Your task to perform on an android device: Open Google Chrome and click the shortcut for Amazon.com Image 0: 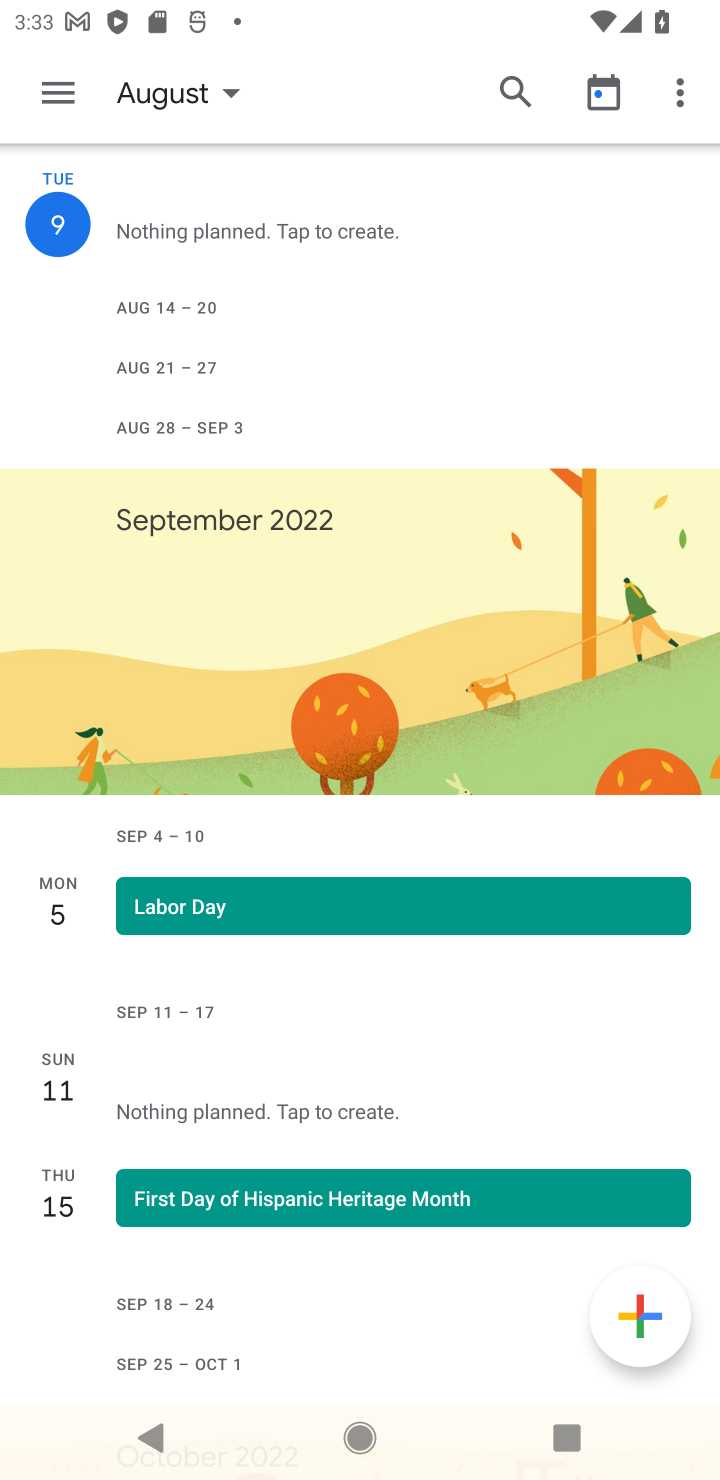
Step 0: press home button
Your task to perform on an android device: Open Google Chrome and click the shortcut for Amazon.com Image 1: 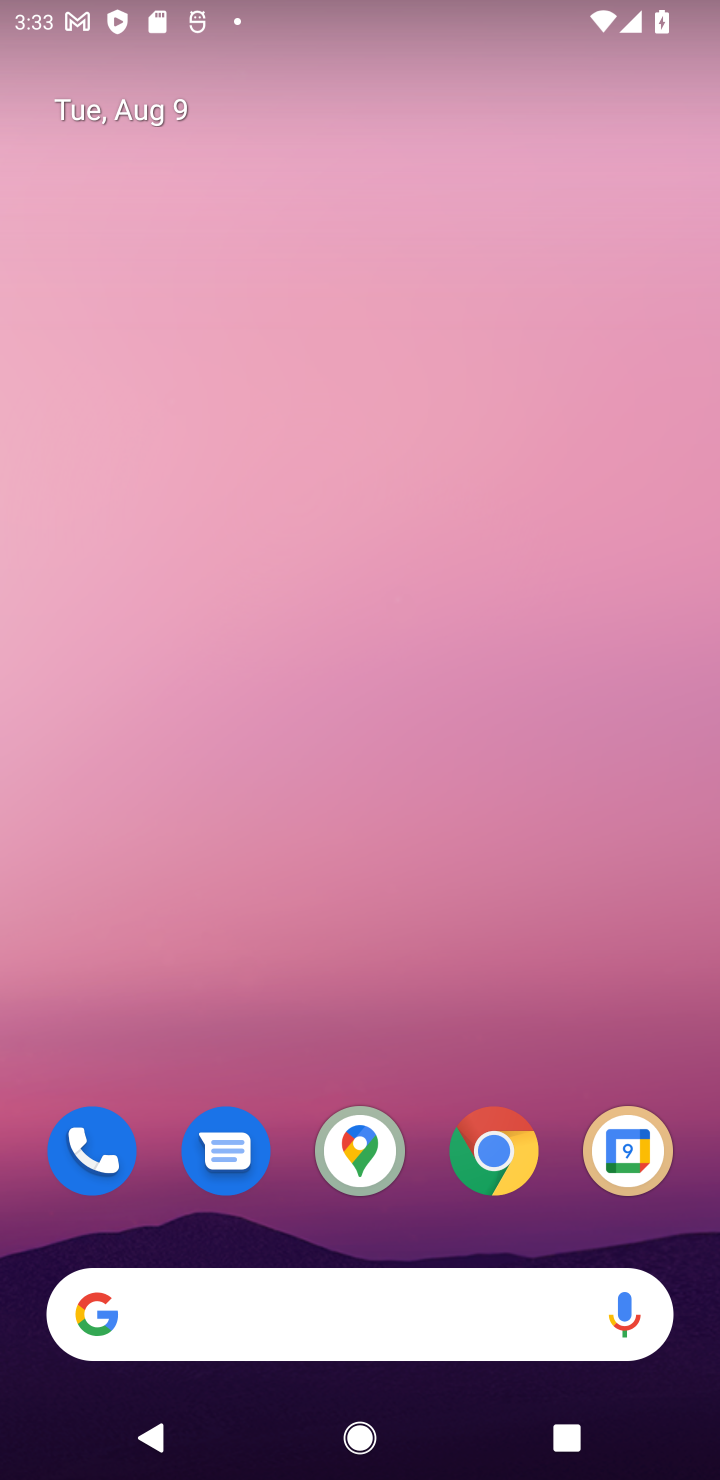
Step 1: click (488, 1174)
Your task to perform on an android device: Open Google Chrome and click the shortcut for Amazon.com Image 2: 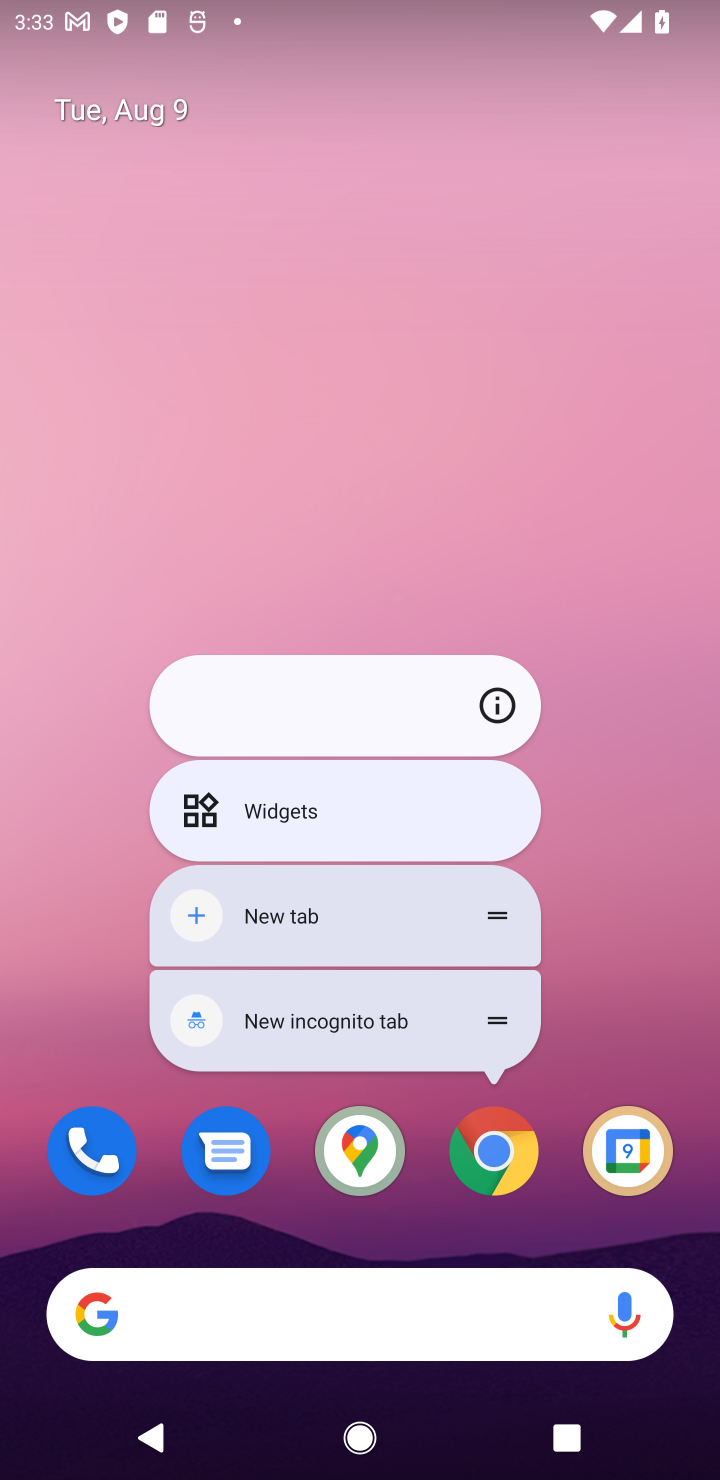
Step 2: click (500, 1205)
Your task to perform on an android device: Open Google Chrome and click the shortcut for Amazon.com Image 3: 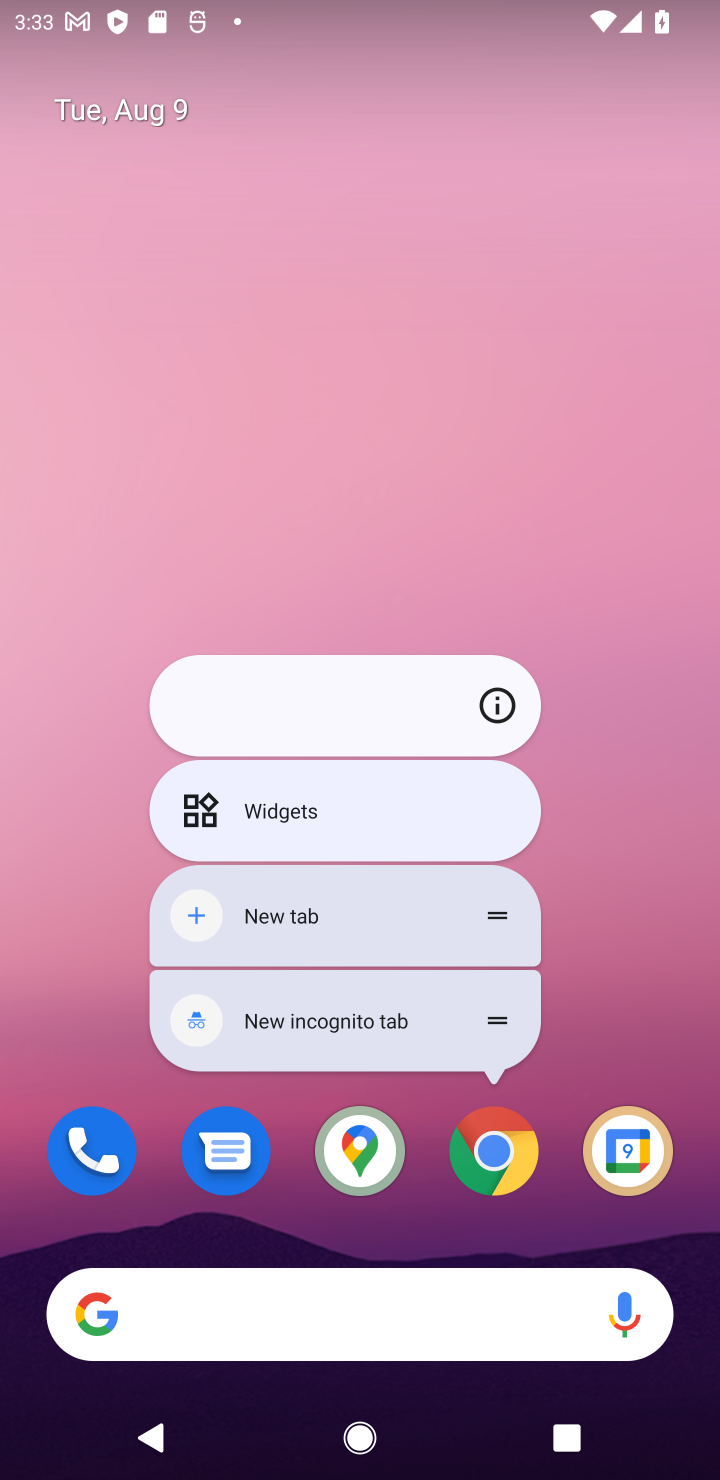
Step 3: click (501, 1153)
Your task to perform on an android device: Open Google Chrome and click the shortcut for Amazon.com Image 4: 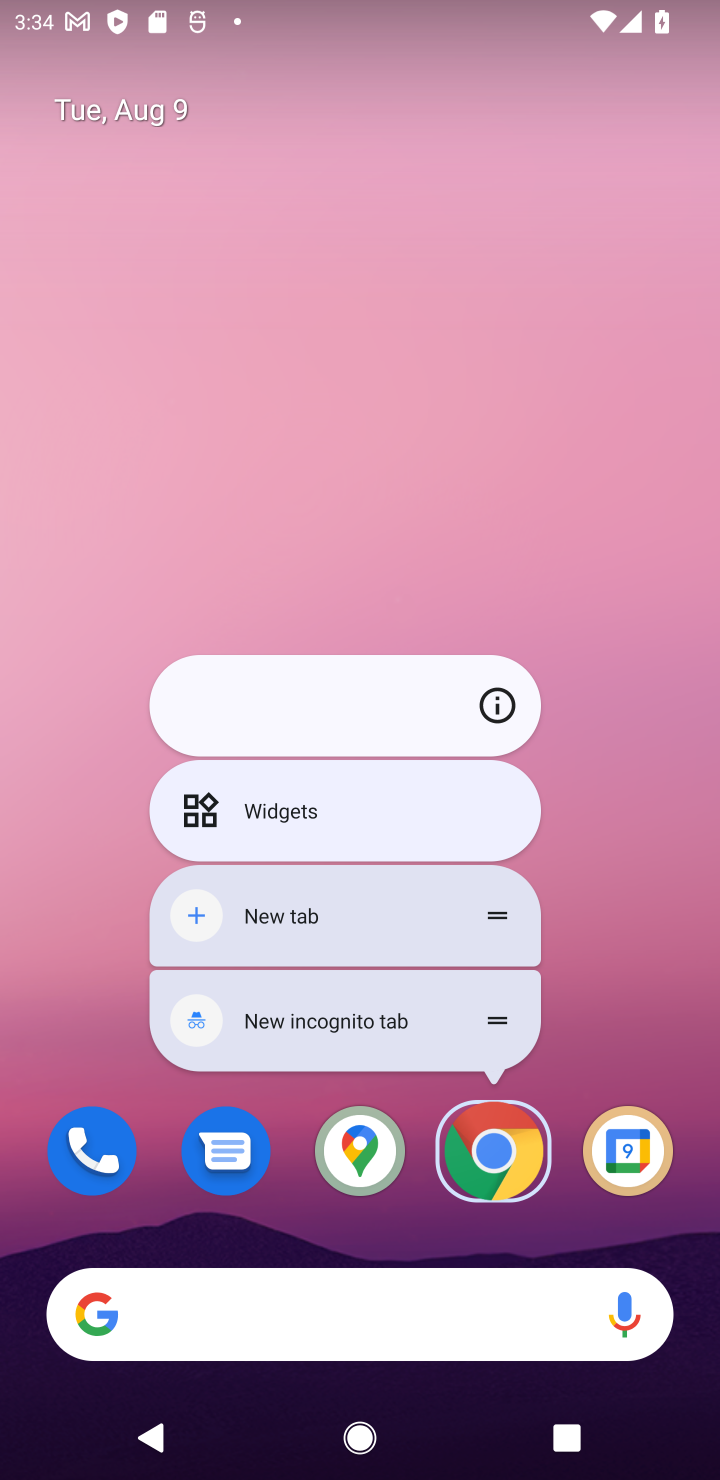
Step 4: click (501, 1153)
Your task to perform on an android device: Open Google Chrome and click the shortcut for Amazon.com Image 5: 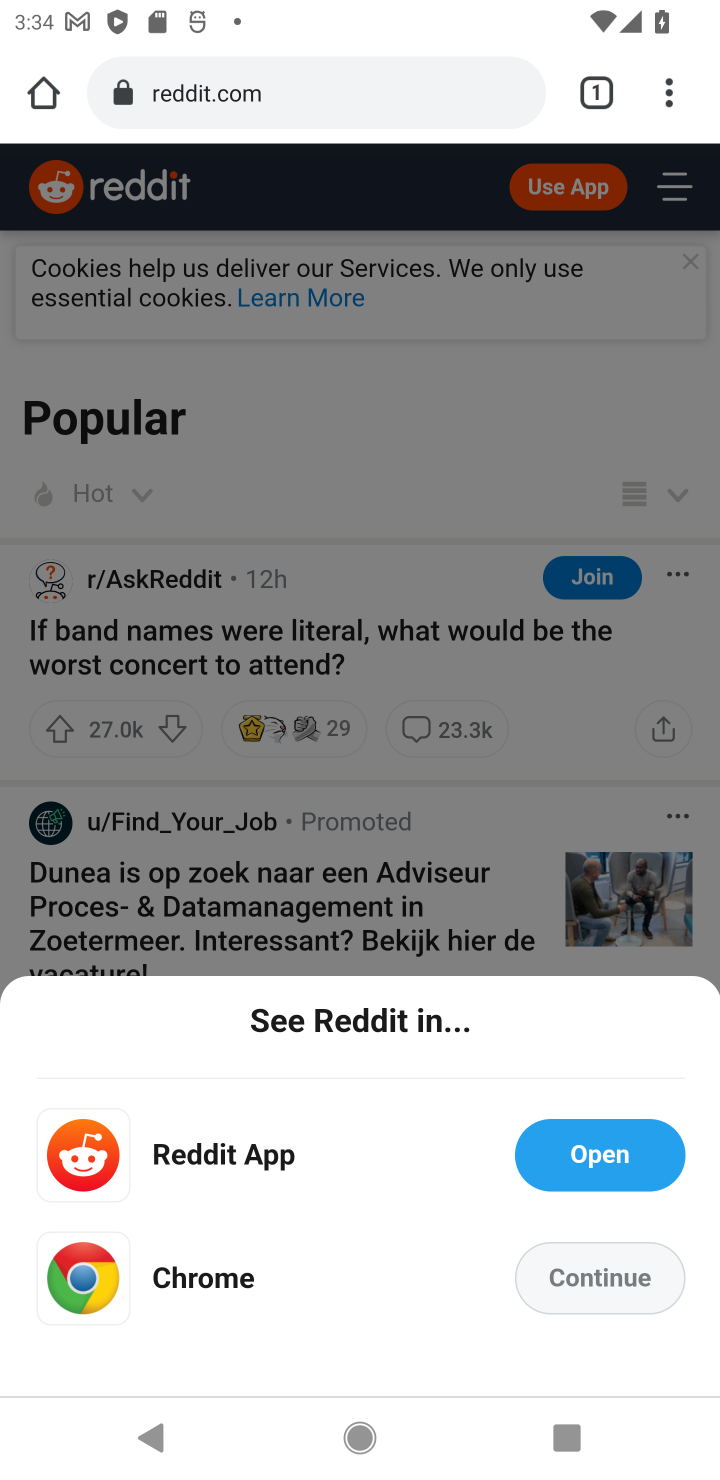
Step 5: click (673, 67)
Your task to perform on an android device: Open Google Chrome and click the shortcut for Amazon.com Image 6: 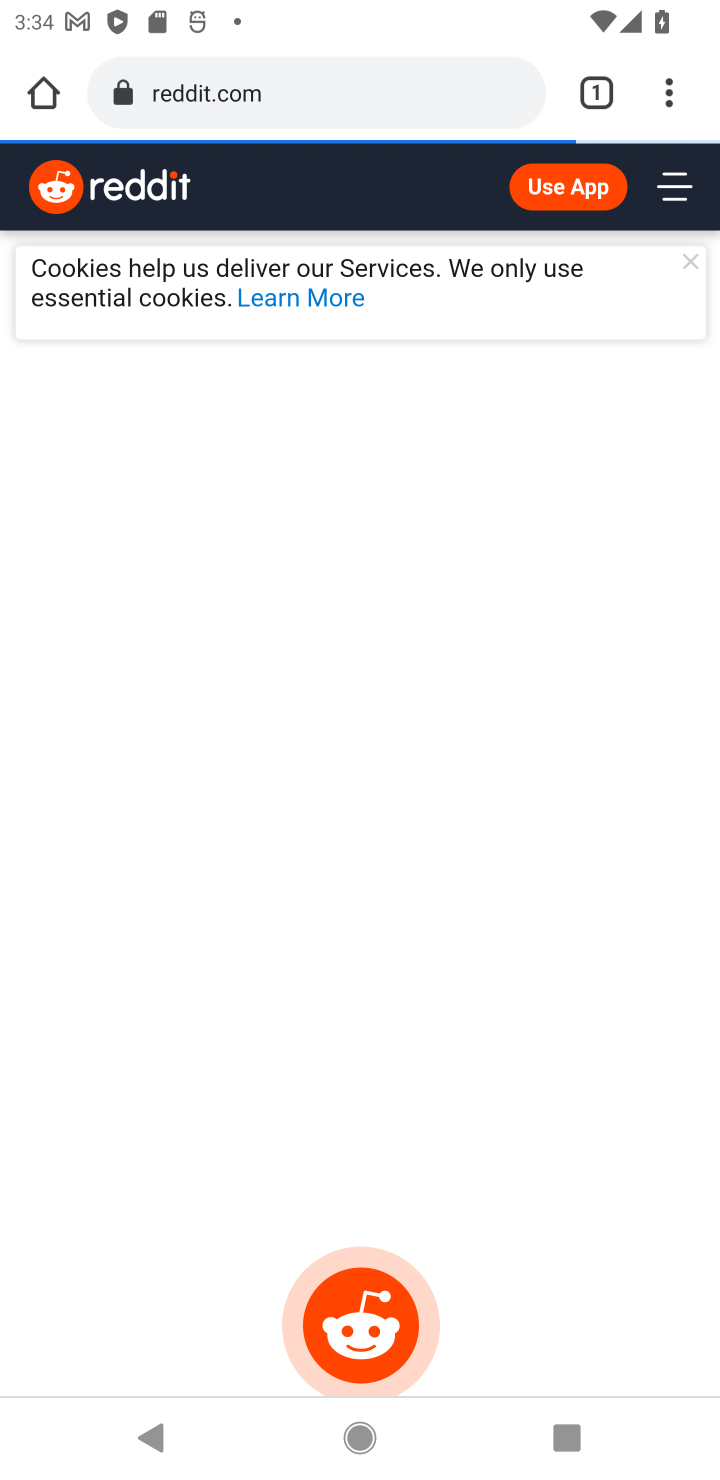
Step 6: click (673, 70)
Your task to perform on an android device: Open Google Chrome and click the shortcut for Amazon.com Image 7: 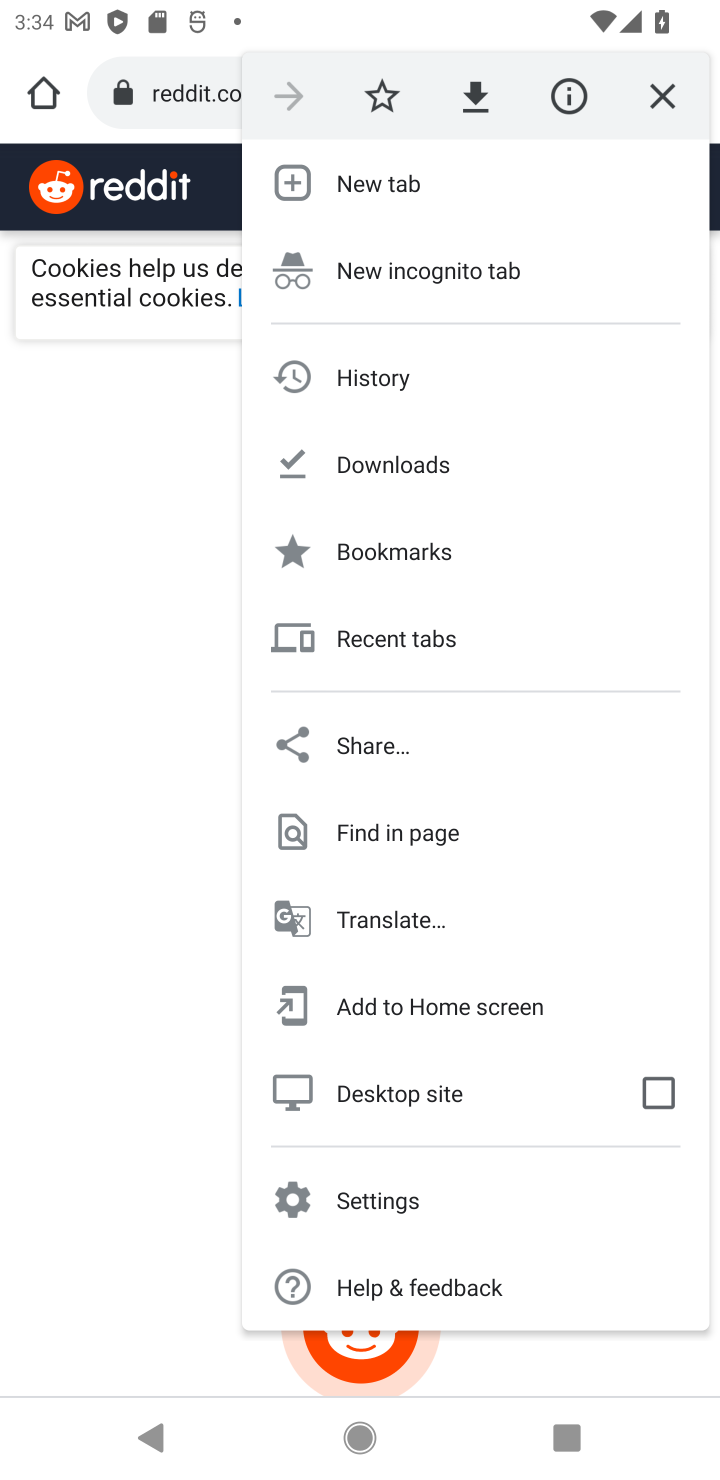
Step 7: click (472, 197)
Your task to perform on an android device: Open Google Chrome and click the shortcut for Amazon.com Image 8: 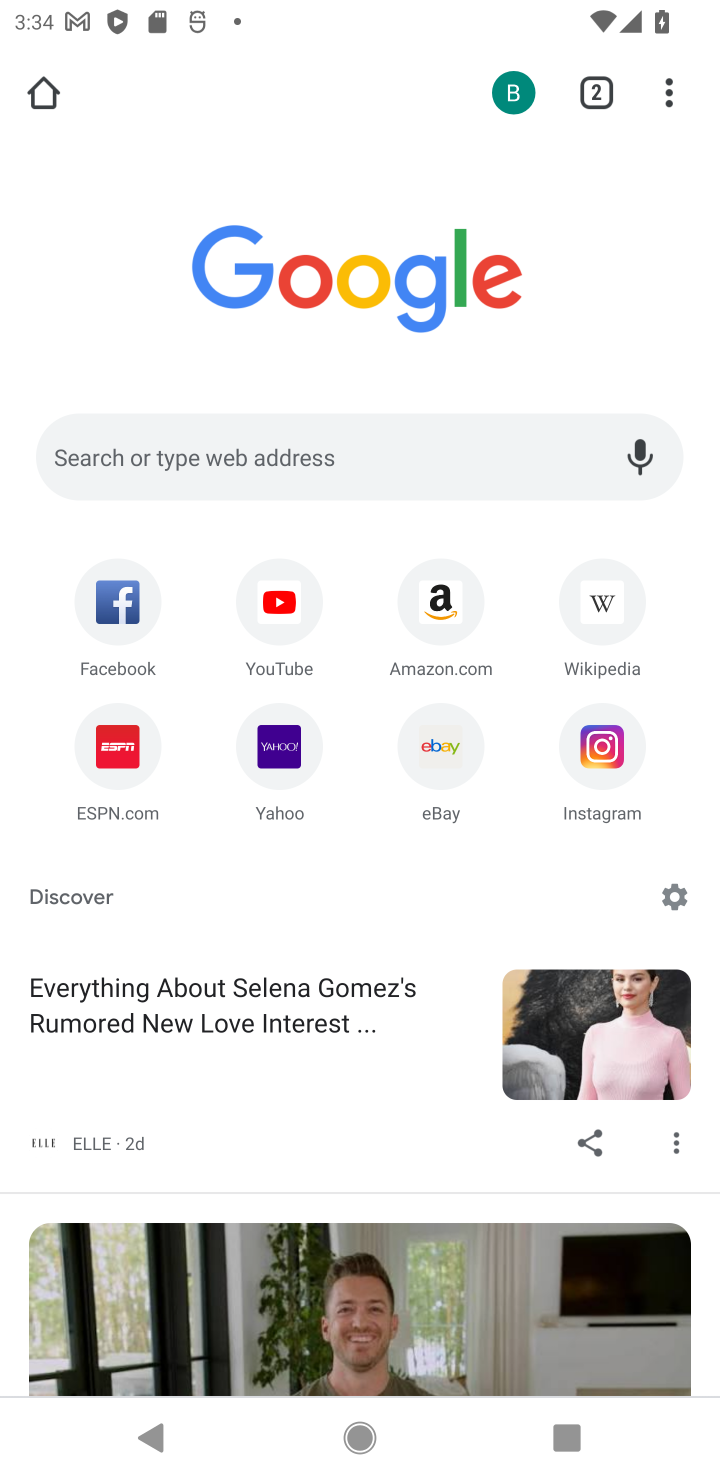
Step 8: click (431, 596)
Your task to perform on an android device: Open Google Chrome and click the shortcut for Amazon.com Image 9: 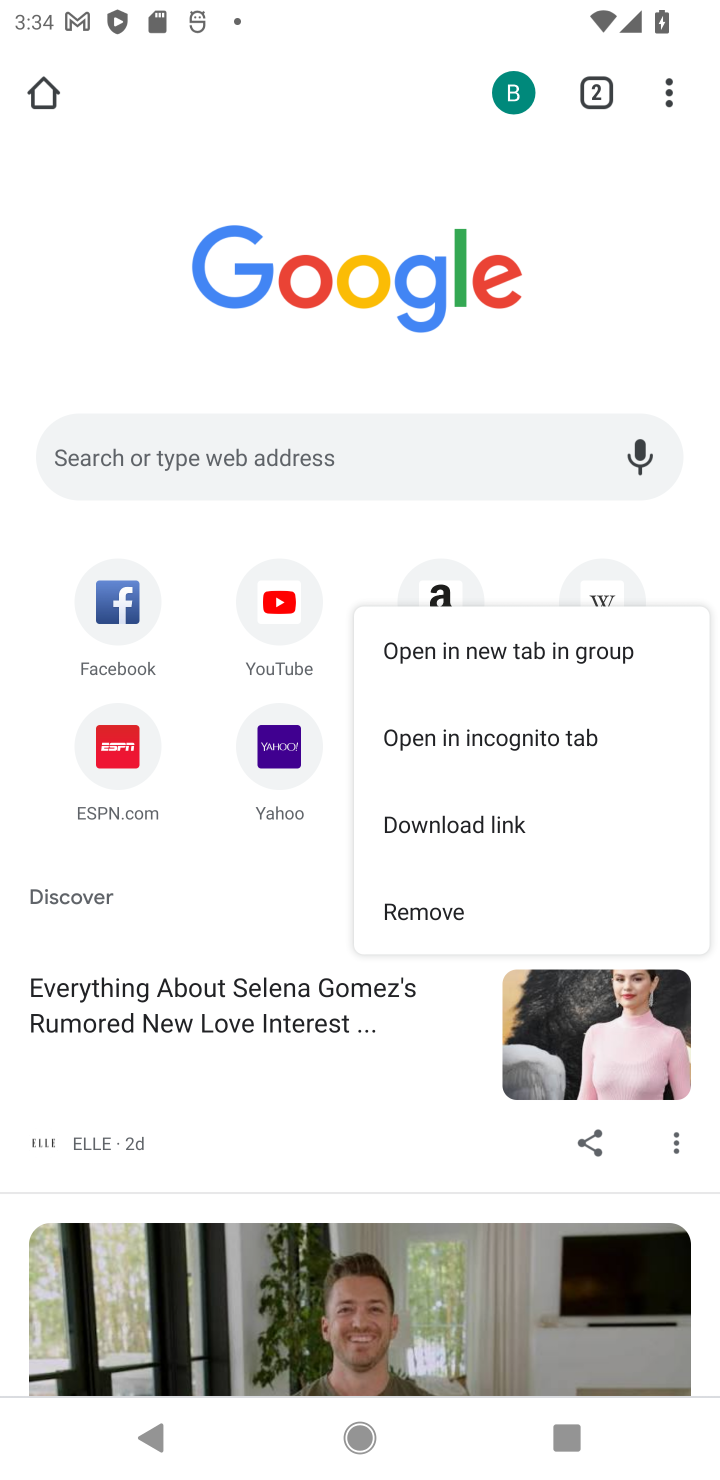
Step 9: click (450, 573)
Your task to perform on an android device: Open Google Chrome and click the shortcut for Amazon.com Image 10: 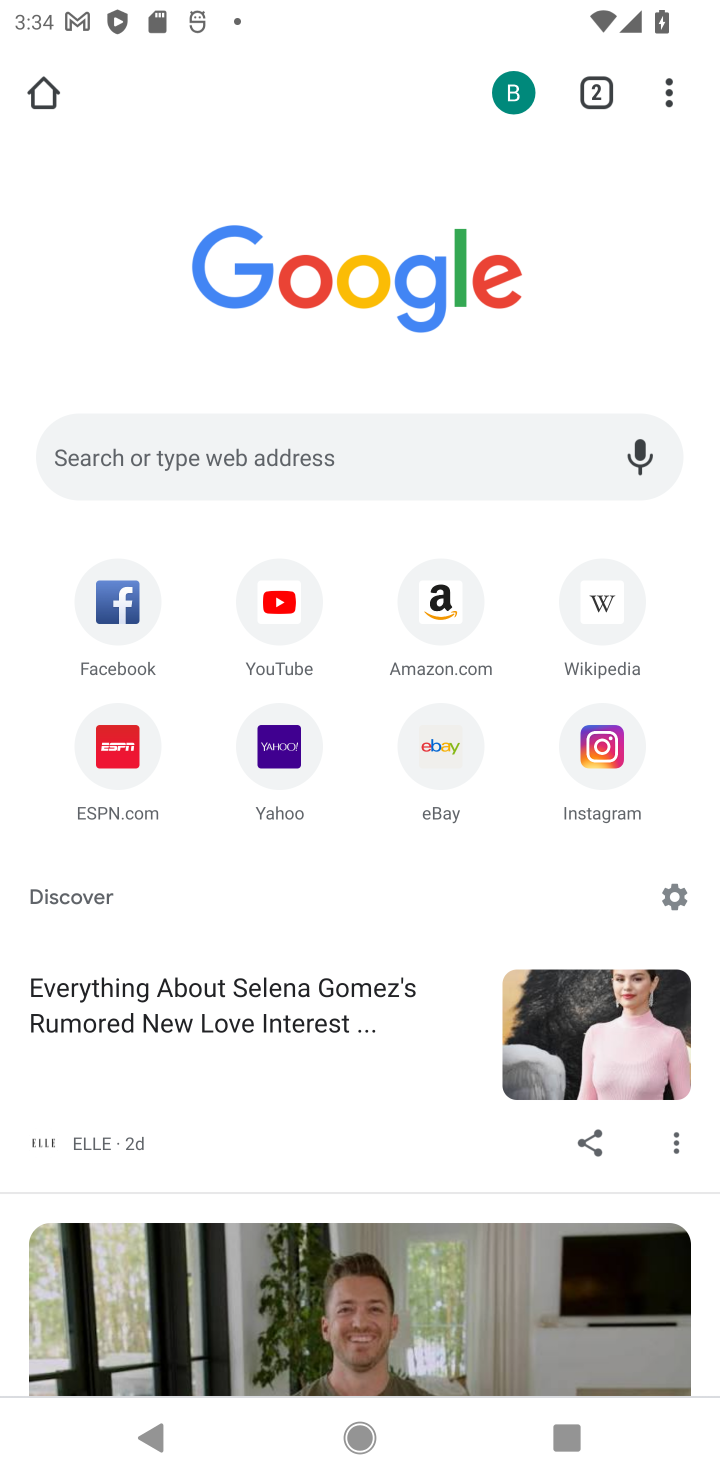
Step 10: click (431, 598)
Your task to perform on an android device: Open Google Chrome and click the shortcut for Amazon.com Image 11: 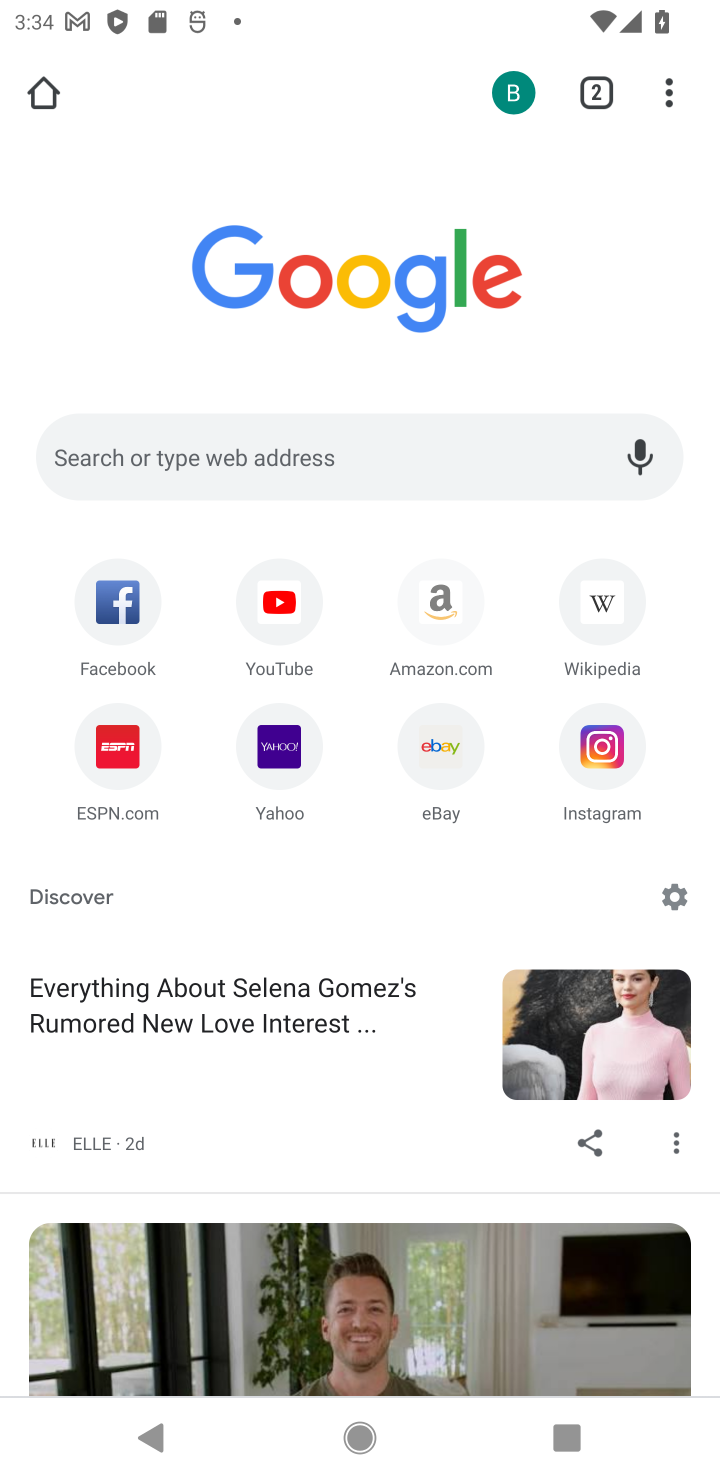
Step 11: click (431, 598)
Your task to perform on an android device: Open Google Chrome and click the shortcut for Amazon.com Image 12: 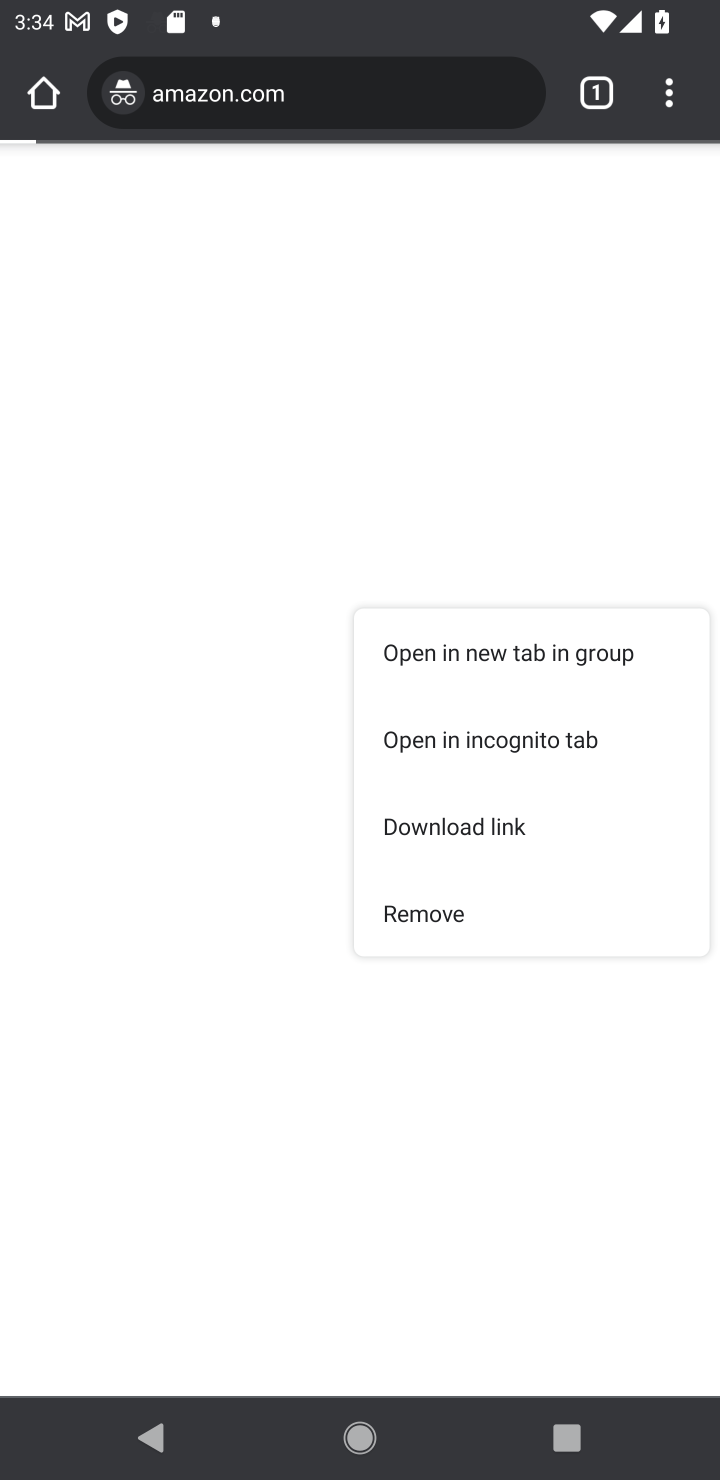
Step 12: click (470, 663)
Your task to perform on an android device: Open Google Chrome and click the shortcut for Amazon.com Image 13: 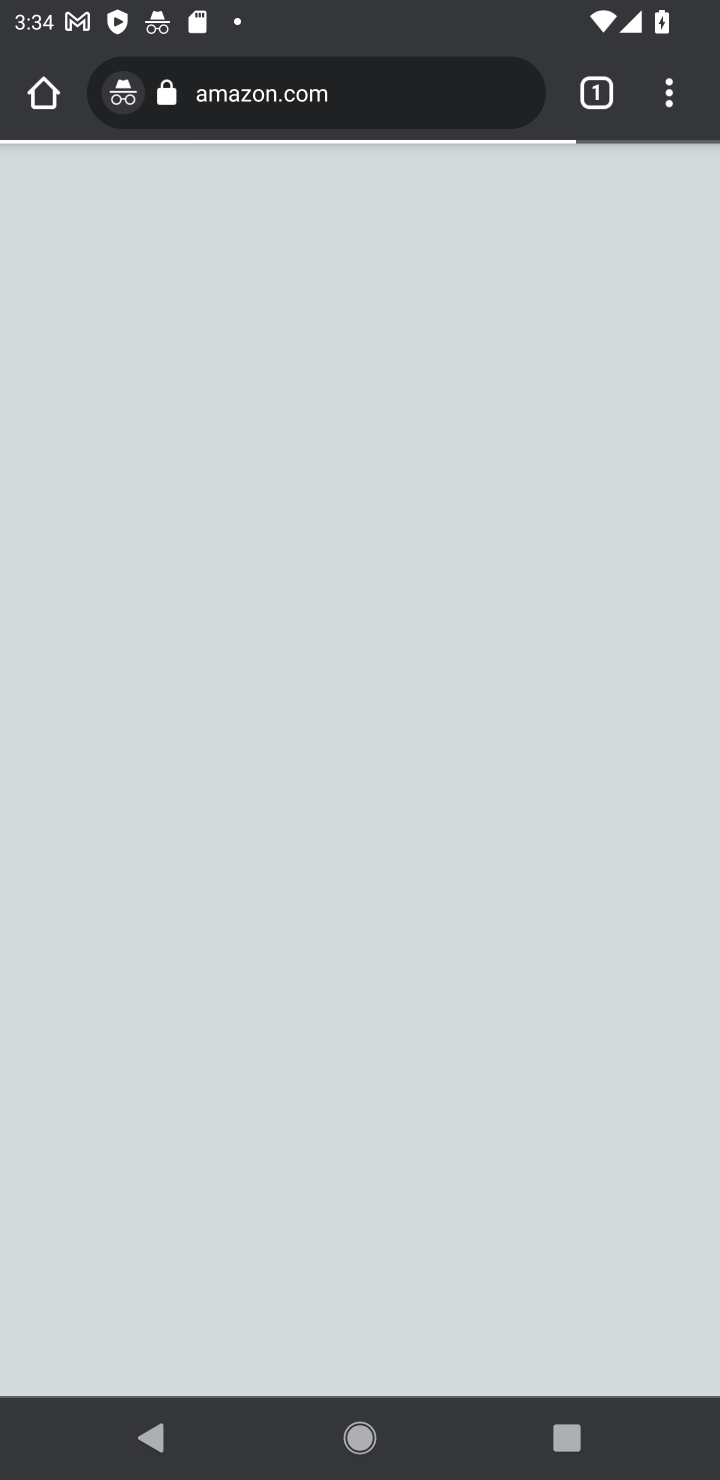
Step 13: task complete